Your task to perform on an android device: Go to settings Image 0: 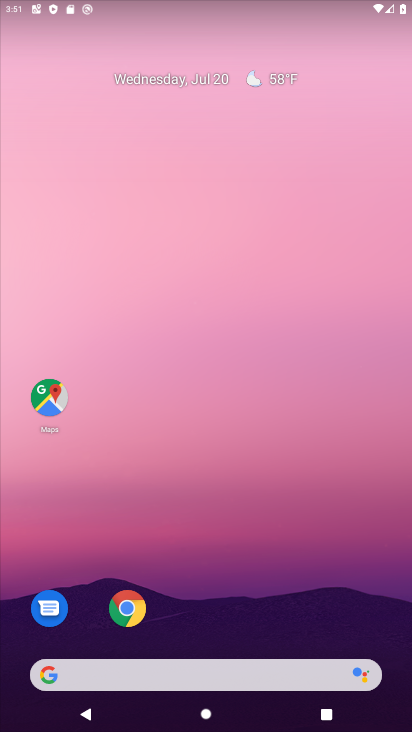
Step 0: drag from (272, 618) to (227, 107)
Your task to perform on an android device: Go to settings Image 1: 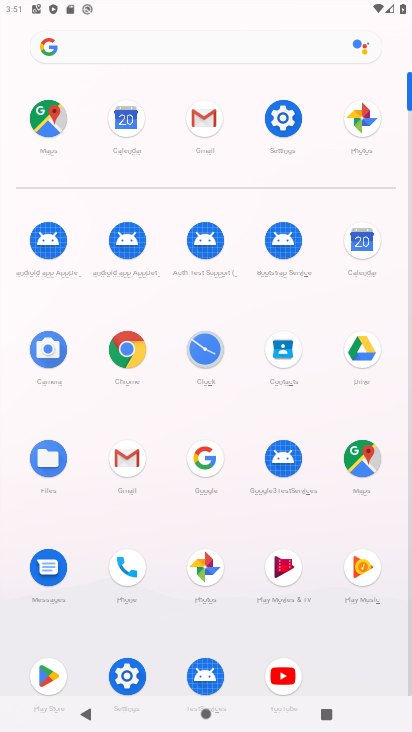
Step 1: click (278, 127)
Your task to perform on an android device: Go to settings Image 2: 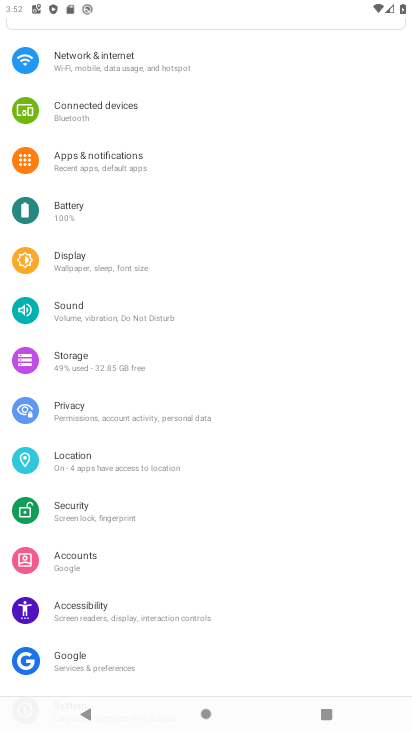
Step 2: task complete